Your task to perform on an android device: Go to location settings Image 0: 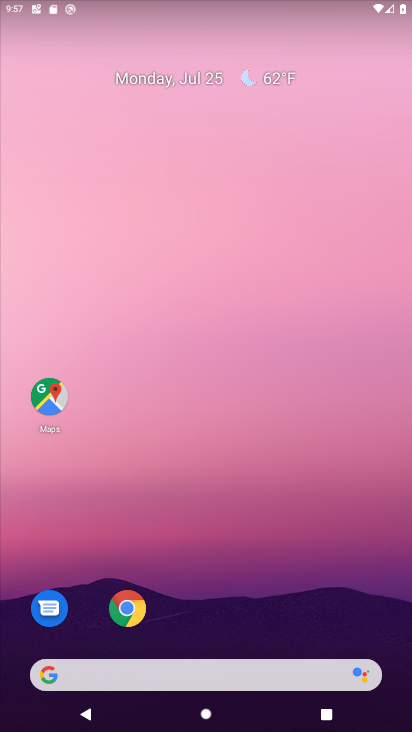
Step 0: drag from (219, 641) to (213, 27)
Your task to perform on an android device: Go to location settings Image 1: 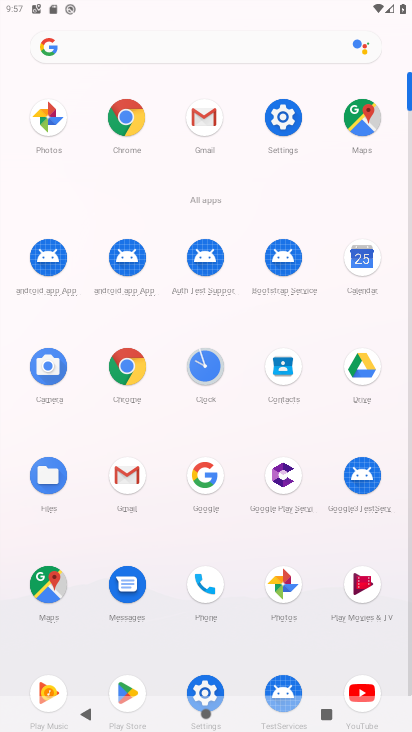
Step 1: click (284, 115)
Your task to perform on an android device: Go to location settings Image 2: 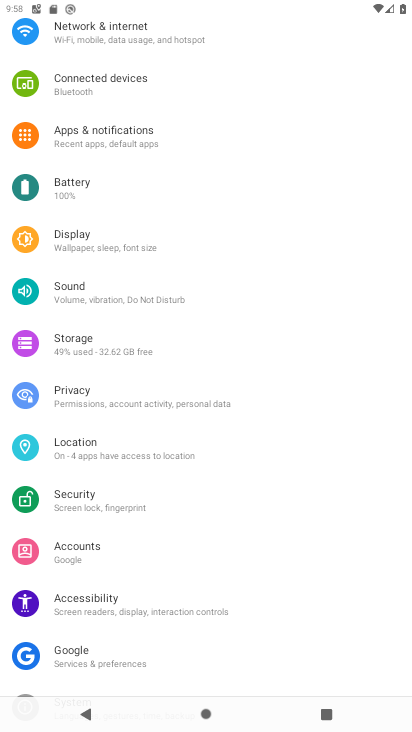
Step 2: click (106, 447)
Your task to perform on an android device: Go to location settings Image 3: 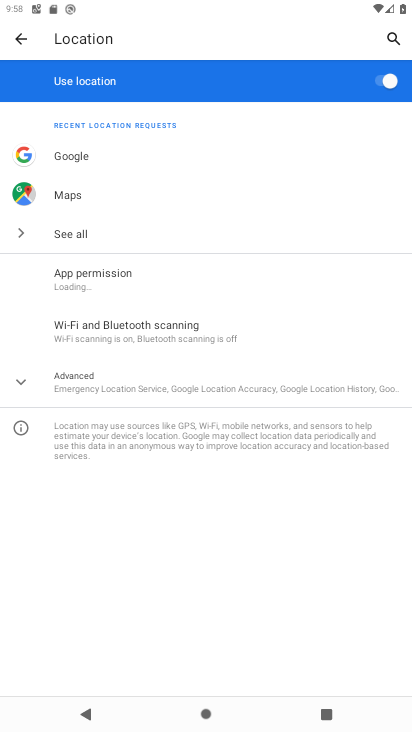
Step 3: click (15, 379)
Your task to perform on an android device: Go to location settings Image 4: 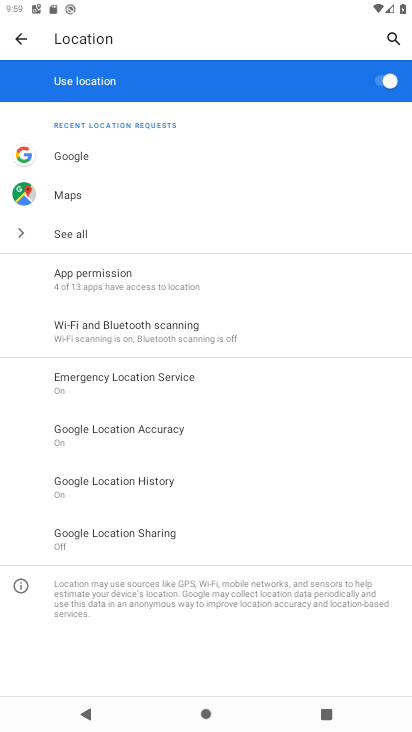
Step 4: task complete